Your task to perform on an android device: Open notification settings Image 0: 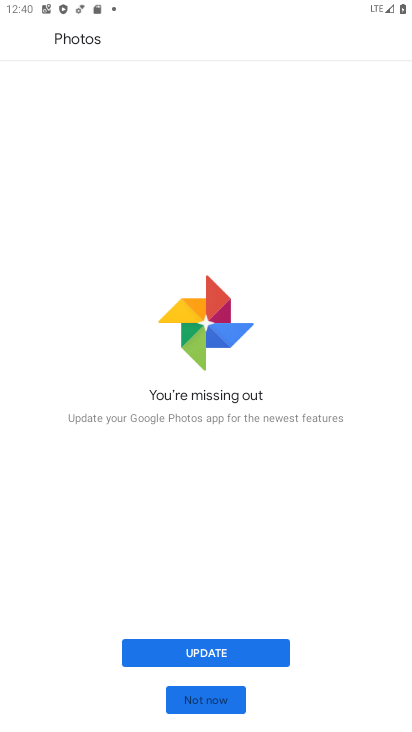
Step 0: press home button
Your task to perform on an android device: Open notification settings Image 1: 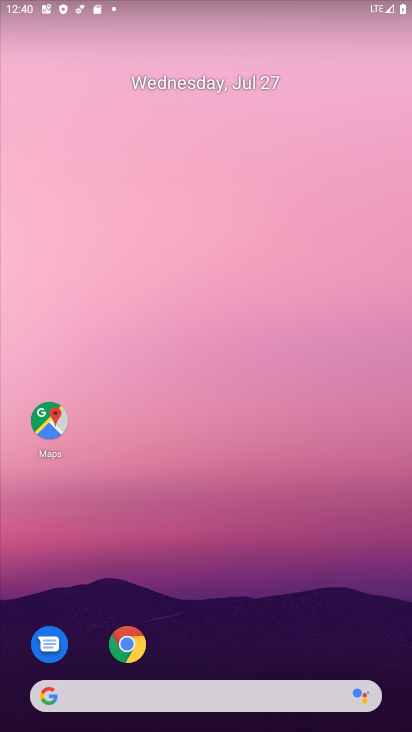
Step 1: drag from (171, 599) to (192, 303)
Your task to perform on an android device: Open notification settings Image 2: 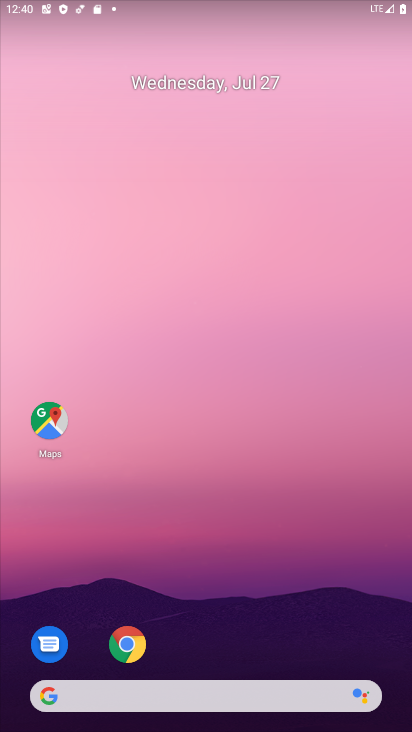
Step 2: drag from (175, 662) to (319, 43)
Your task to perform on an android device: Open notification settings Image 3: 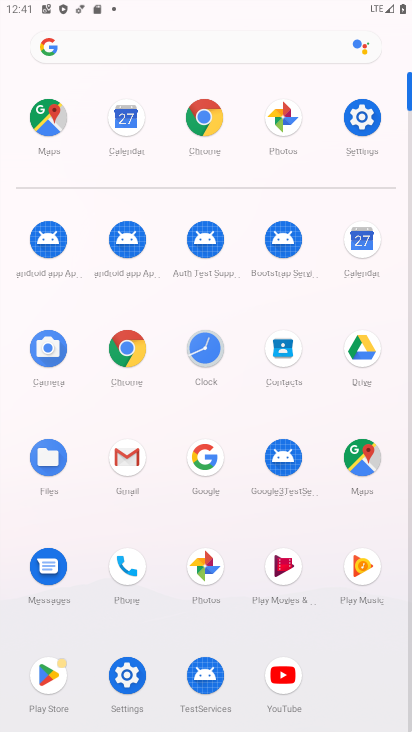
Step 3: click (122, 684)
Your task to perform on an android device: Open notification settings Image 4: 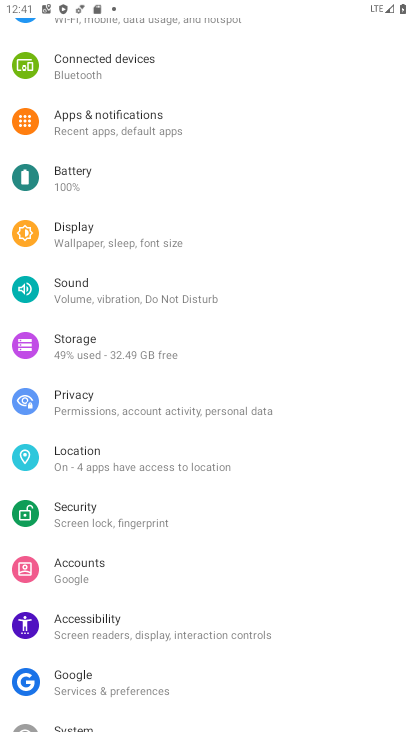
Step 4: click (151, 123)
Your task to perform on an android device: Open notification settings Image 5: 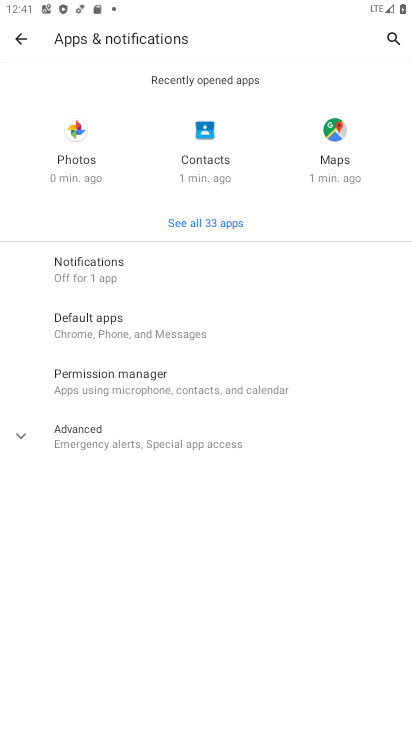
Step 5: click (100, 289)
Your task to perform on an android device: Open notification settings Image 6: 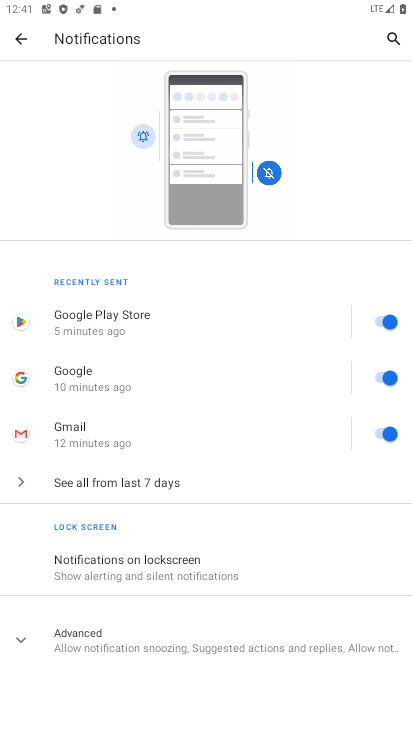
Step 6: task complete